Your task to perform on an android device: When is my next appointment? Image 0: 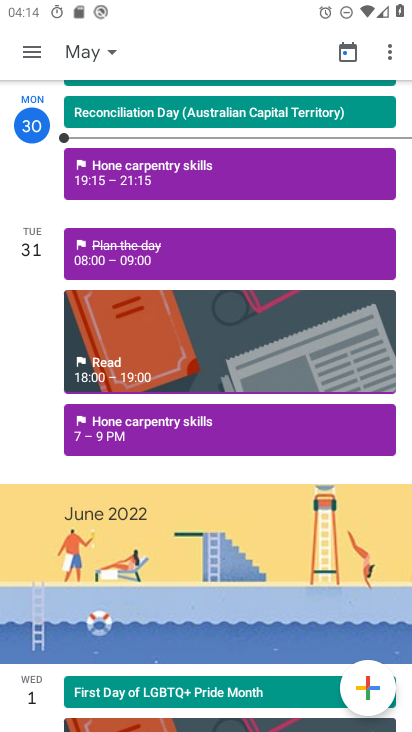
Step 0: press home button
Your task to perform on an android device: When is my next appointment? Image 1: 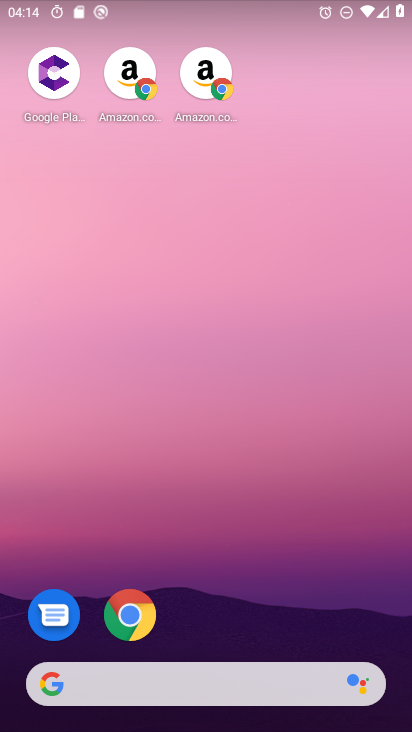
Step 1: drag from (253, 602) to (236, 83)
Your task to perform on an android device: When is my next appointment? Image 2: 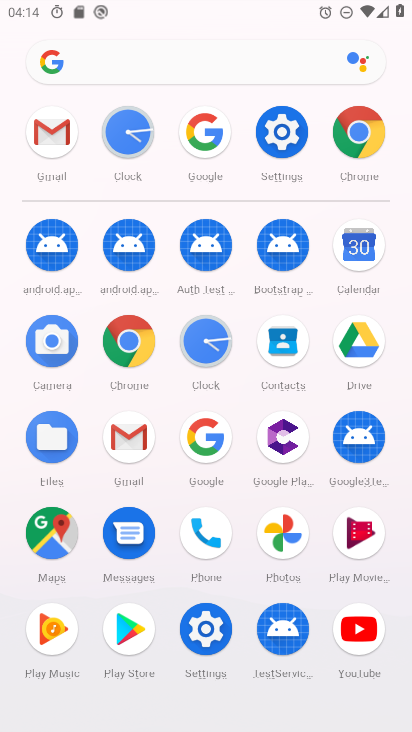
Step 2: click (360, 249)
Your task to perform on an android device: When is my next appointment? Image 3: 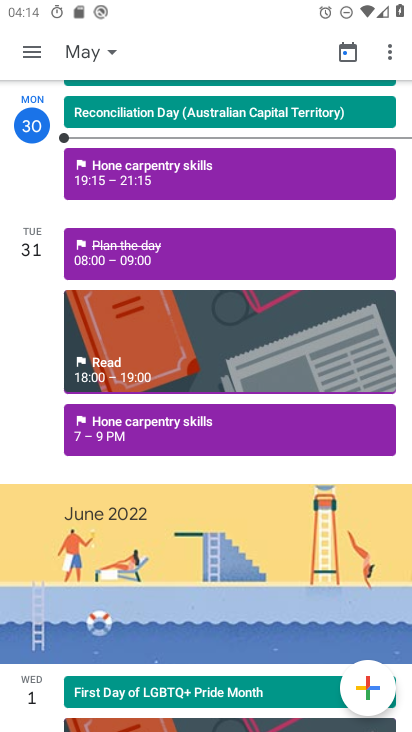
Step 3: click (343, 54)
Your task to perform on an android device: When is my next appointment? Image 4: 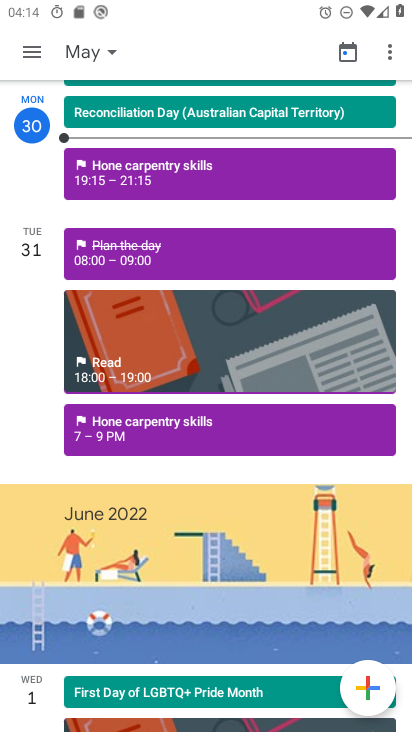
Step 4: click (109, 57)
Your task to perform on an android device: When is my next appointment? Image 5: 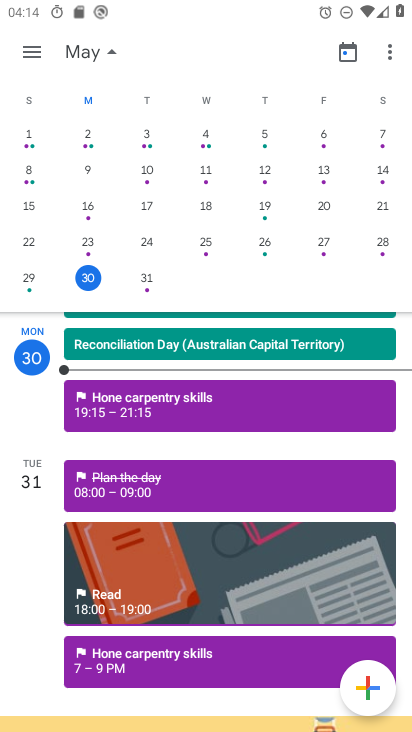
Step 5: click (145, 289)
Your task to perform on an android device: When is my next appointment? Image 6: 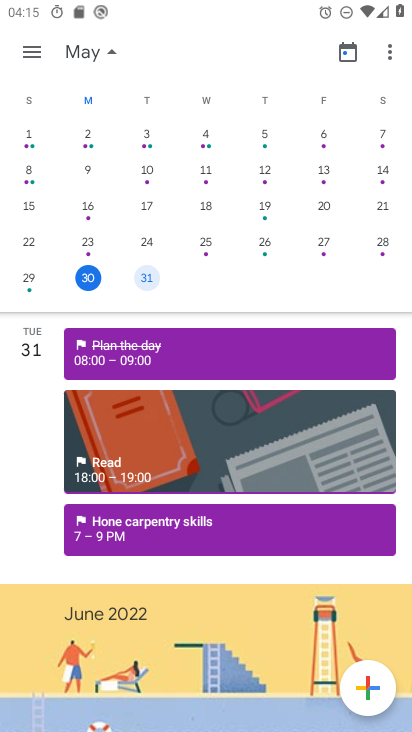
Step 6: click (30, 53)
Your task to perform on an android device: When is my next appointment? Image 7: 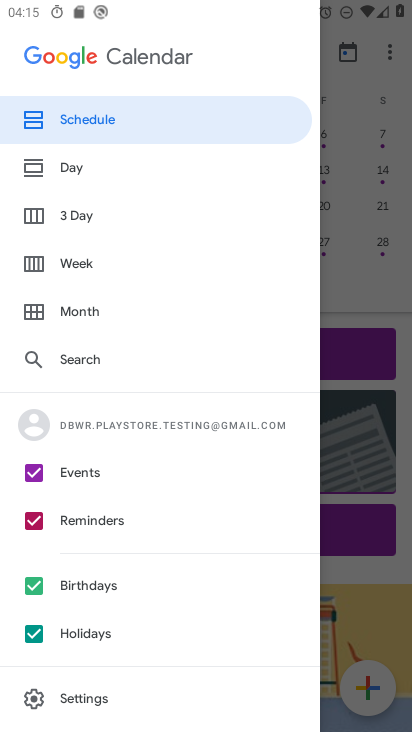
Step 7: click (123, 130)
Your task to perform on an android device: When is my next appointment? Image 8: 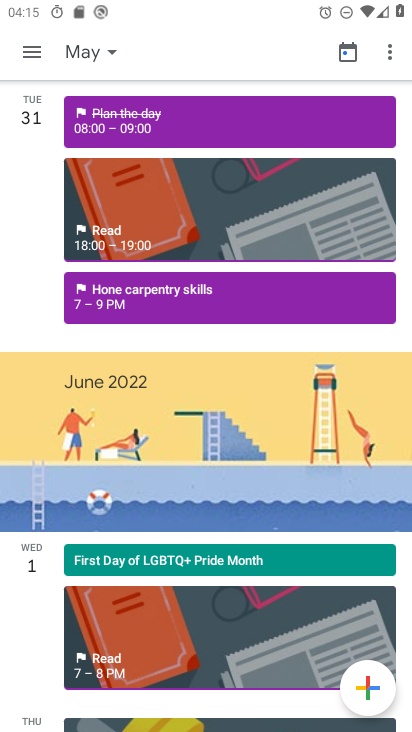
Step 8: task complete